Your task to perform on an android device: search for starred emails in the gmail app Image 0: 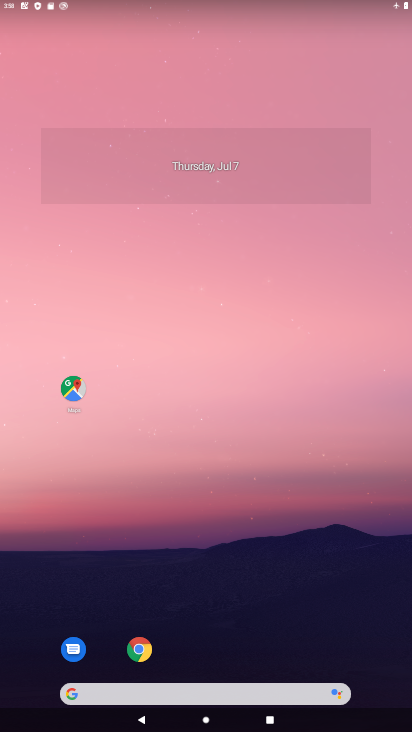
Step 0: drag from (387, 664) to (16, 65)
Your task to perform on an android device: search for starred emails in the gmail app Image 1: 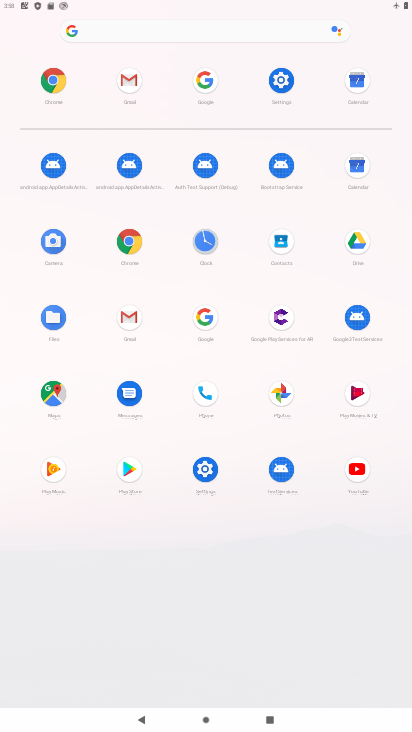
Step 1: click (135, 314)
Your task to perform on an android device: search for starred emails in the gmail app Image 2: 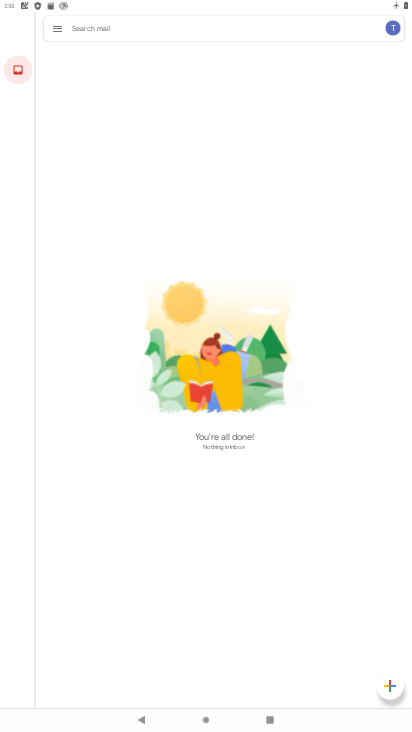
Step 2: click (58, 27)
Your task to perform on an android device: search for starred emails in the gmail app Image 3: 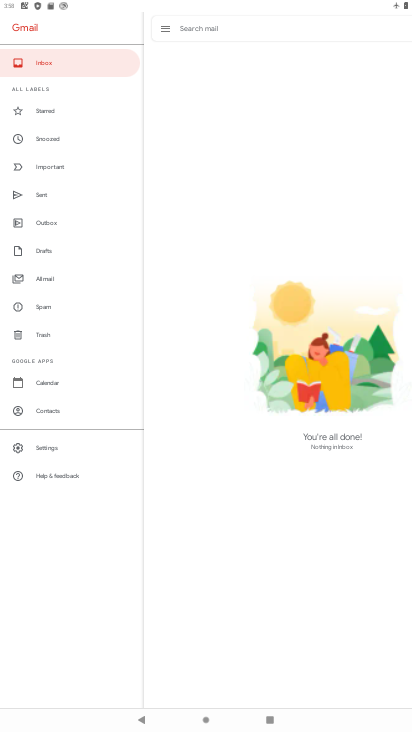
Step 3: click (70, 116)
Your task to perform on an android device: search for starred emails in the gmail app Image 4: 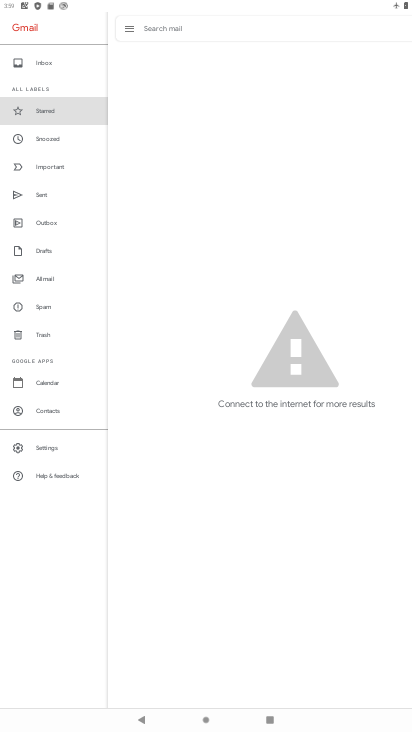
Step 4: task complete